Your task to perform on an android device: Go to Android settings Image 0: 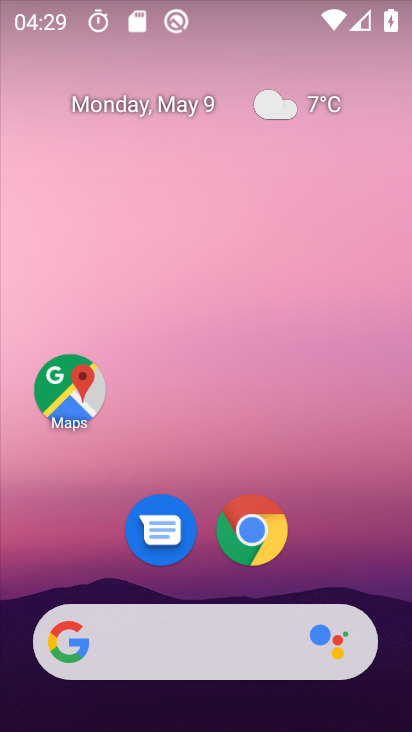
Step 0: drag from (208, 571) to (334, 16)
Your task to perform on an android device: Go to Android settings Image 1: 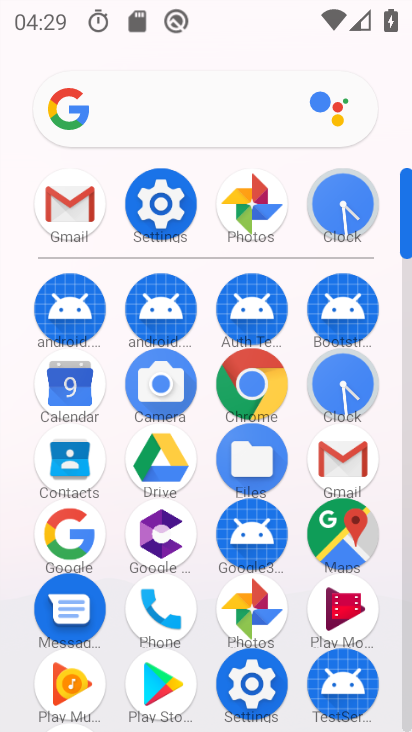
Step 1: click (165, 189)
Your task to perform on an android device: Go to Android settings Image 2: 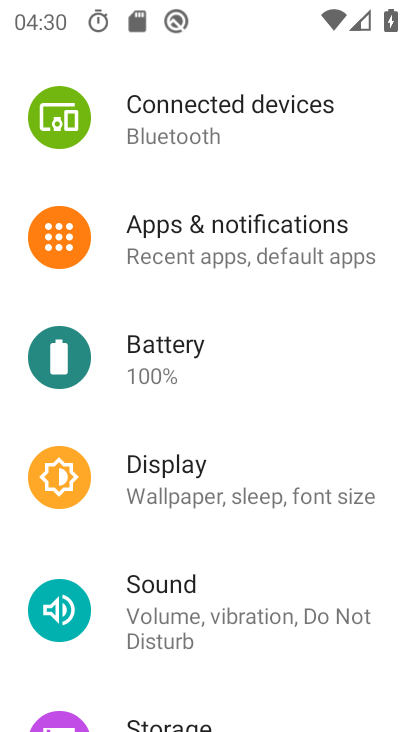
Step 2: drag from (150, 666) to (277, 193)
Your task to perform on an android device: Go to Android settings Image 3: 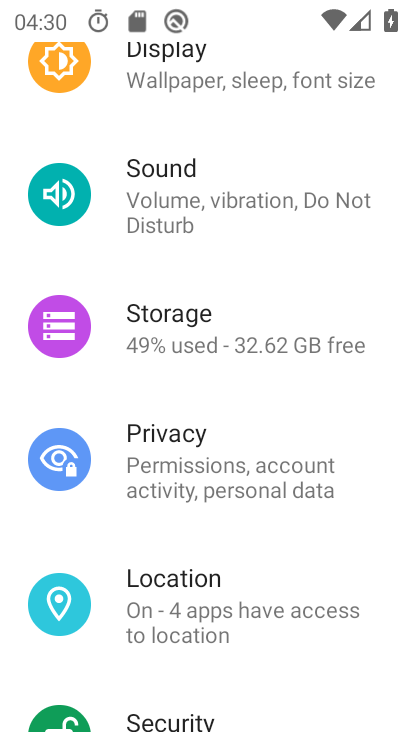
Step 3: drag from (215, 620) to (284, 163)
Your task to perform on an android device: Go to Android settings Image 4: 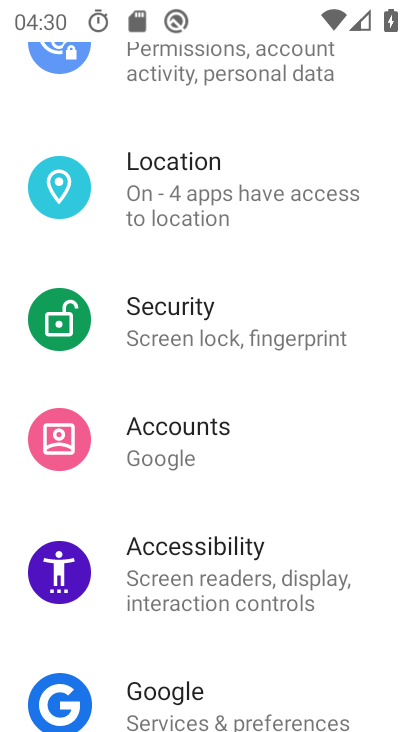
Step 4: drag from (204, 694) to (329, 126)
Your task to perform on an android device: Go to Android settings Image 5: 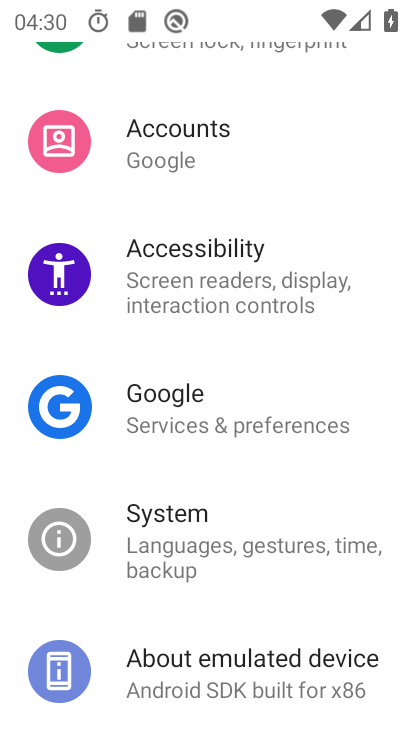
Step 5: drag from (187, 643) to (302, 203)
Your task to perform on an android device: Go to Android settings Image 6: 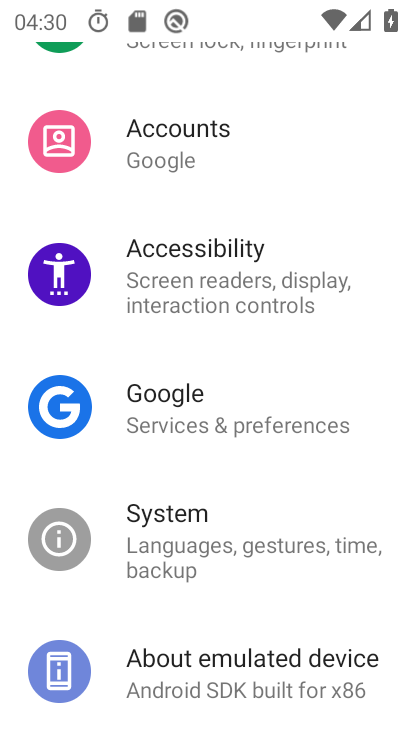
Step 6: click (194, 676)
Your task to perform on an android device: Go to Android settings Image 7: 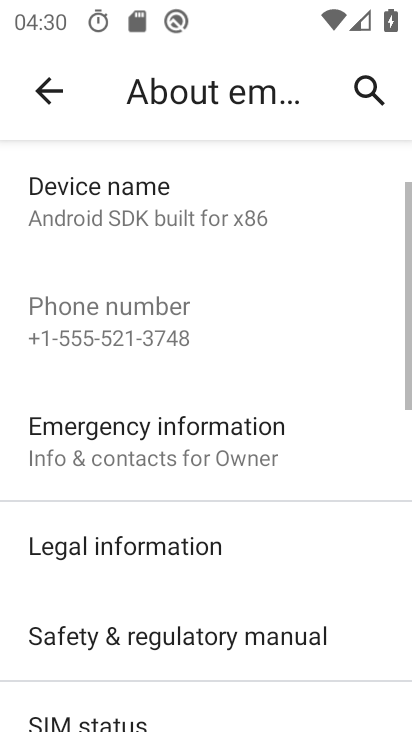
Step 7: drag from (116, 635) to (224, 216)
Your task to perform on an android device: Go to Android settings Image 8: 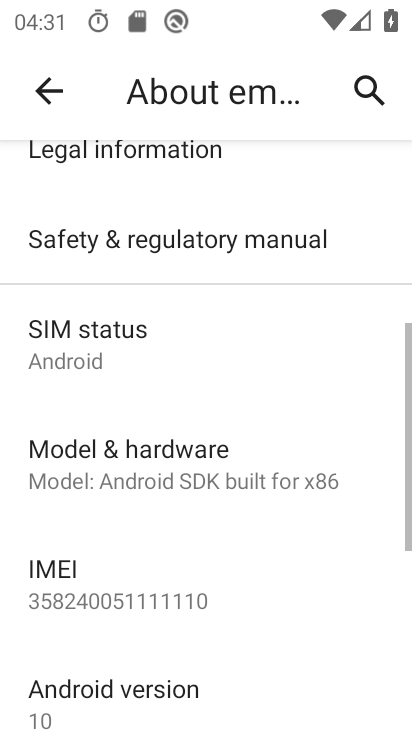
Step 8: click (118, 350)
Your task to perform on an android device: Go to Android settings Image 9: 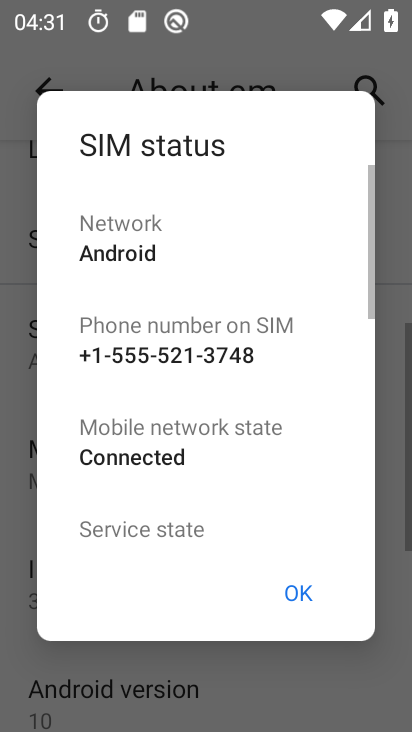
Step 9: click (303, 579)
Your task to perform on an android device: Go to Android settings Image 10: 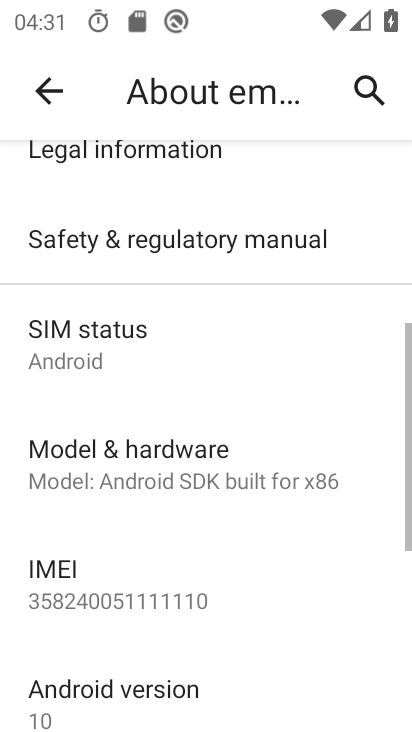
Step 10: click (72, 697)
Your task to perform on an android device: Go to Android settings Image 11: 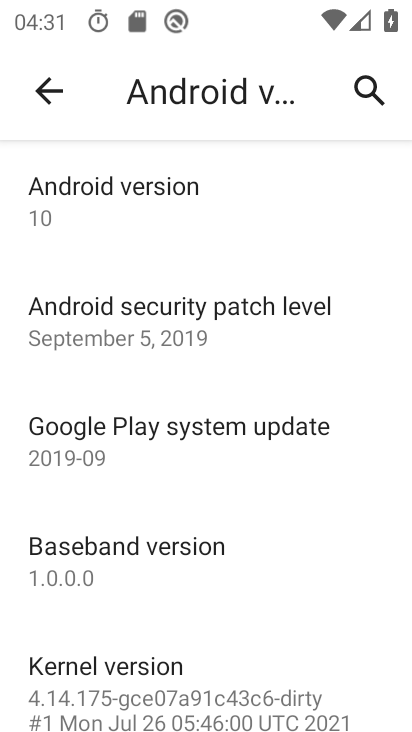
Step 11: task complete